Your task to perform on an android device: clear history in the chrome app Image 0: 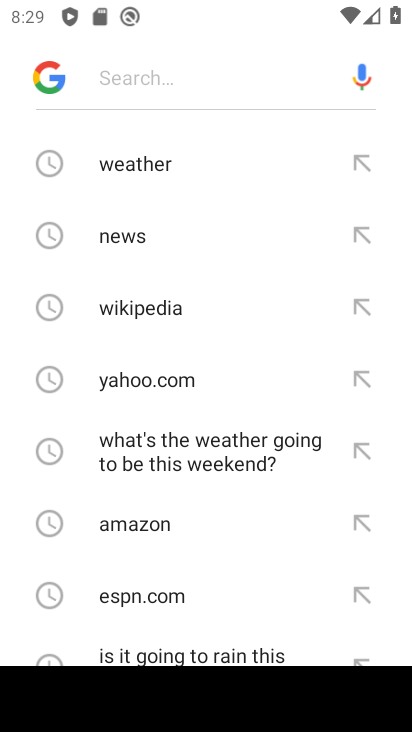
Step 0: press home button
Your task to perform on an android device: clear history in the chrome app Image 1: 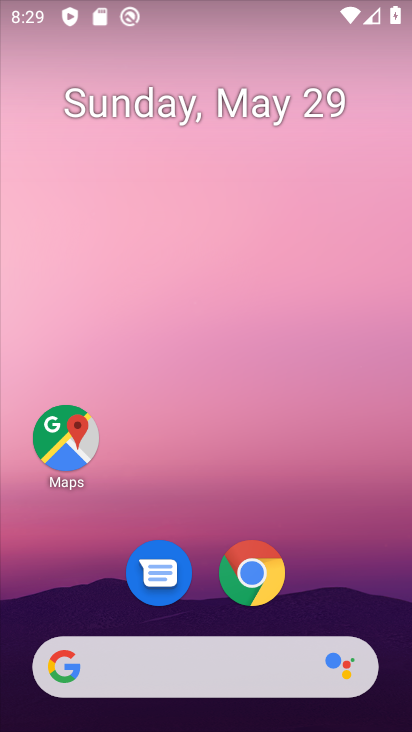
Step 1: click (252, 563)
Your task to perform on an android device: clear history in the chrome app Image 2: 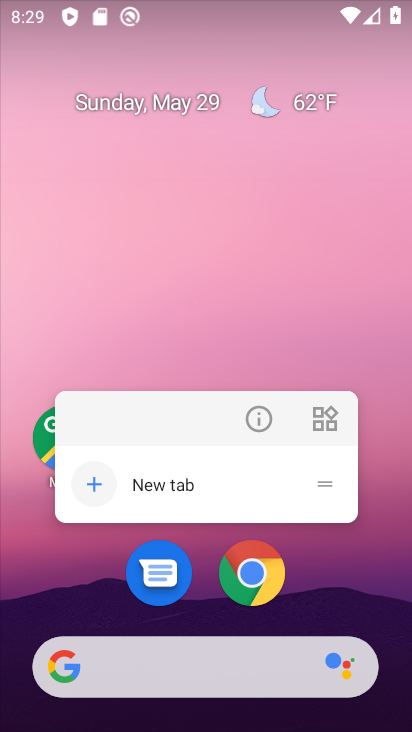
Step 2: click (253, 579)
Your task to perform on an android device: clear history in the chrome app Image 3: 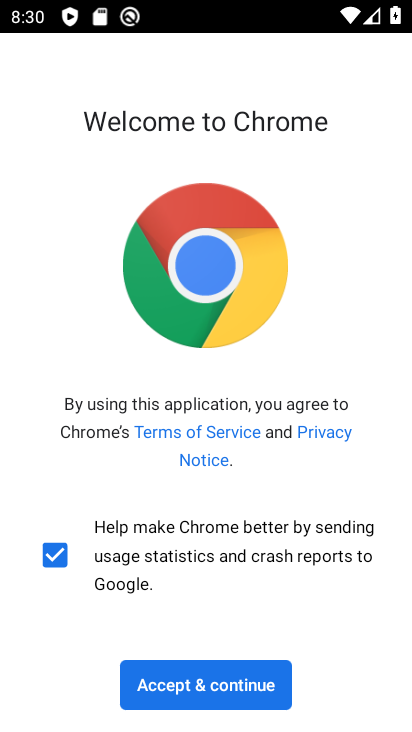
Step 3: click (239, 699)
Your task to perform on an android device: clear history in the chrome app Image 4: 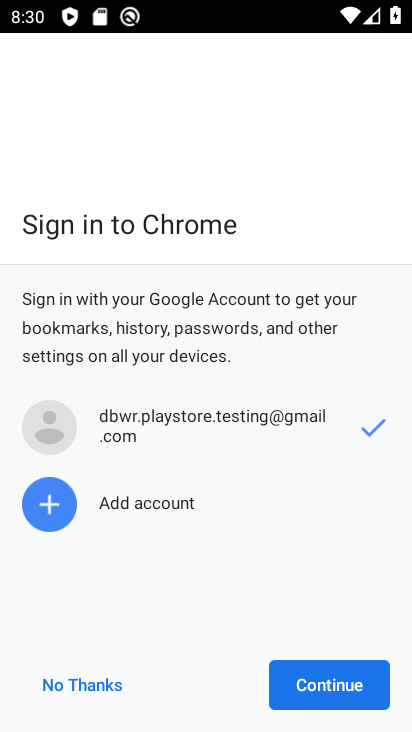
Step 4: click (340, 678)
Your task to perform on an android device: clear history in the chrome app Image 5: 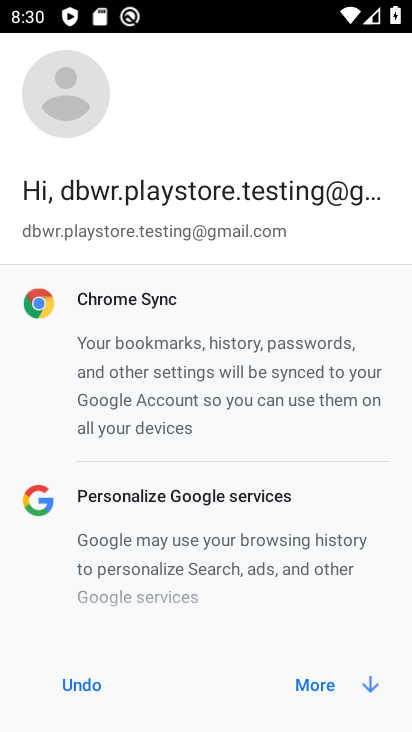
Step 5: click (385, 682)
Your task to perform on an android device: clear history in the chrome app Image 6: 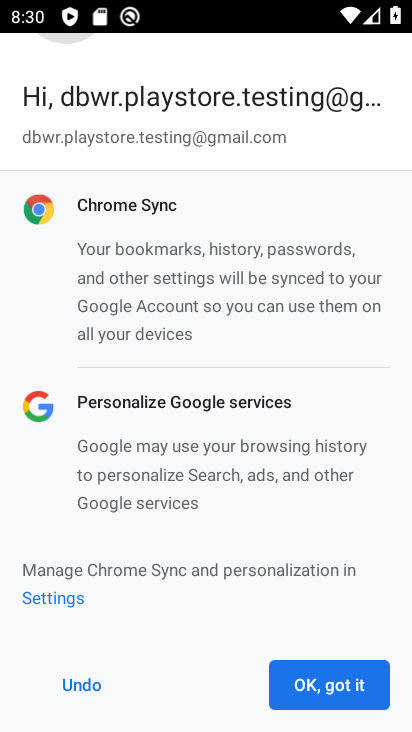
Step 6: click (372, 684)
Your task to perform on an android device: clear history in the chrome app Image 7: 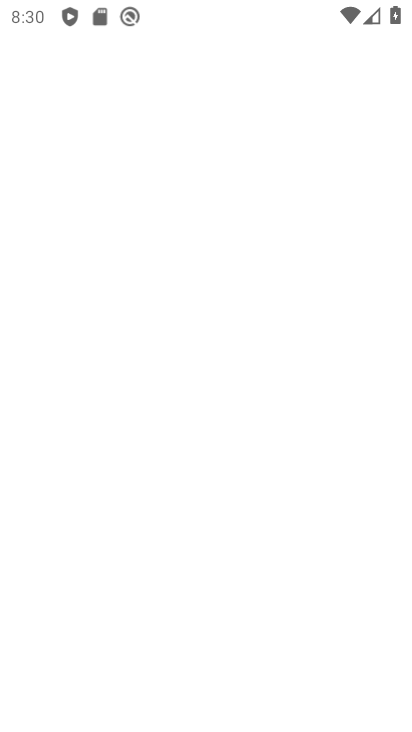
Step 7: click (331, 700)
Your task to perform on an android device: clear history in the chrome app Image 8: 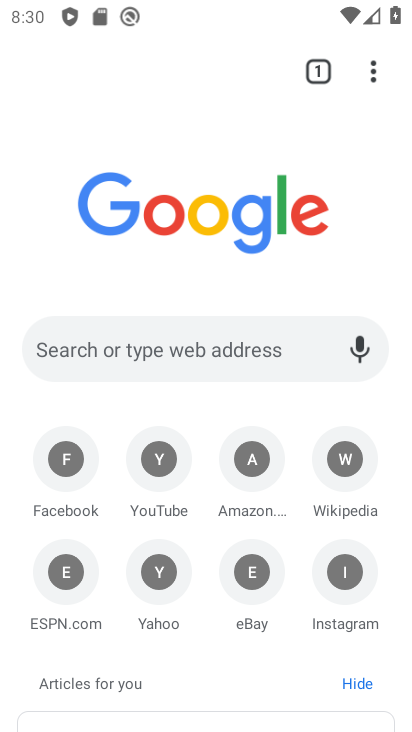
Step 8: click (379, 85)
Your task to perform on an android device: clear history in the chrome app Image 9: 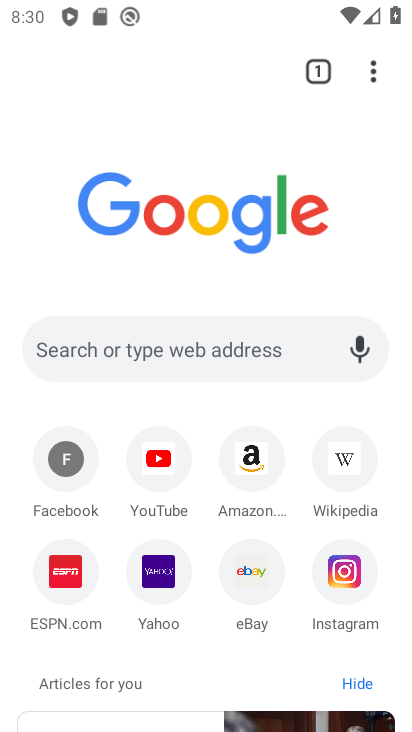
Step 9: click (372, 72)
Your task to perform on an android device: clear history in the chrome app Image 10: 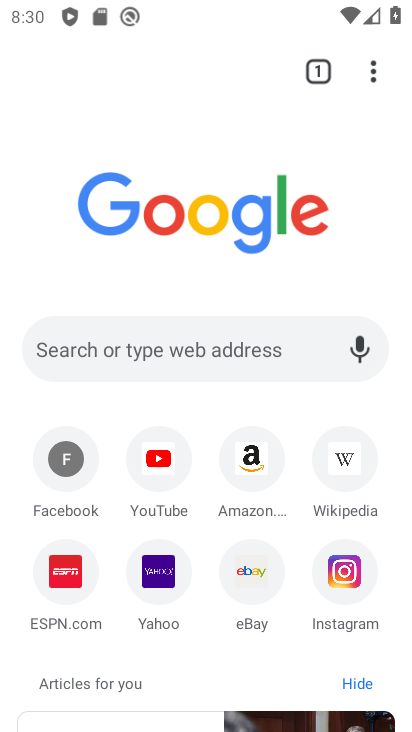
Step 10: task complete